Your task to perform on an android device: turn notification dots on Image 0: 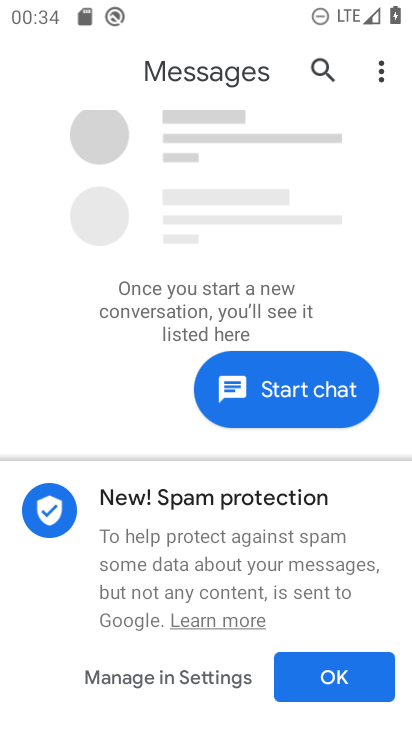
Step 0: press home button
Your task to perform on an android device: turn notification dots on Image 1: 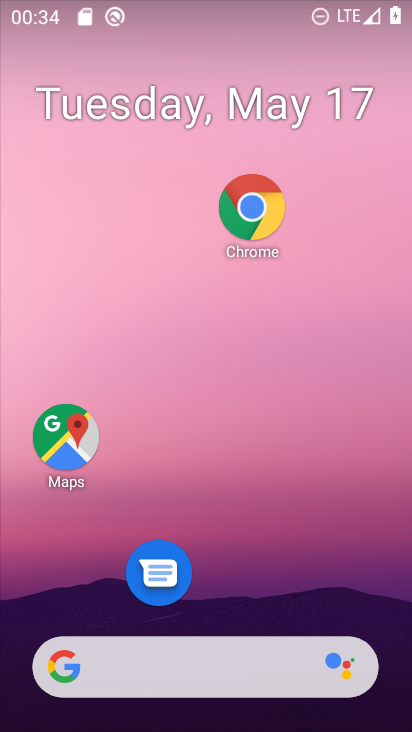
Step 1: drag from (164, 630) to (209, 125)
Your task to perform on an android device: turn notification dots on Image 2: 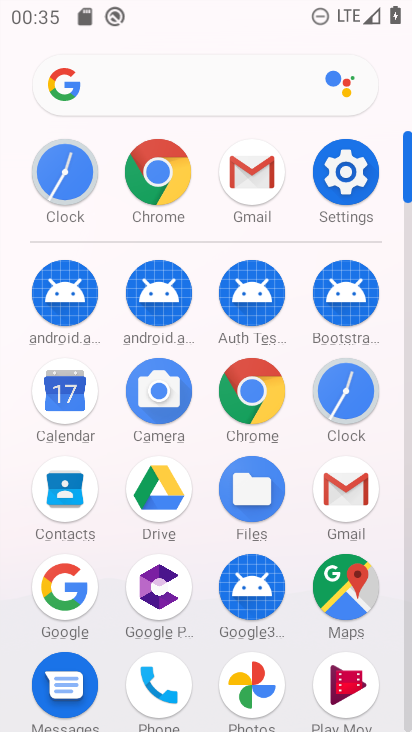
Step 2: click (329, 166)
Your task to perform on an android device: turn notification dots on Image 3: 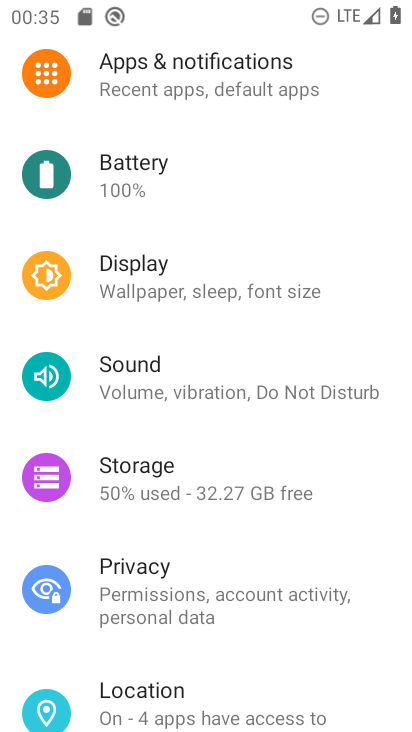
Step 3: drag from (246, 175) to (253, 607)
Your task to perform on an android device: turn notification dots on Image 4: 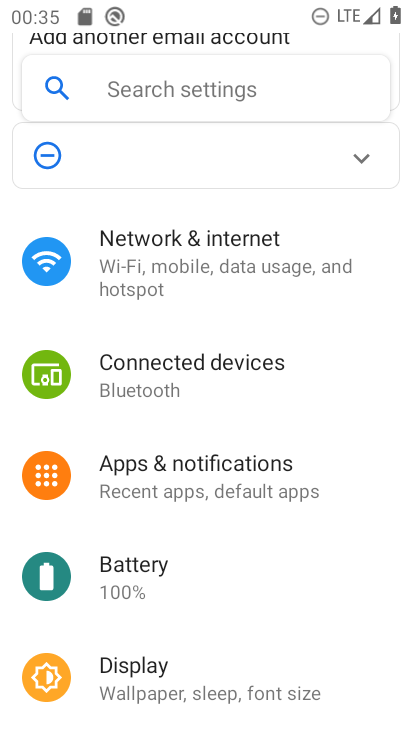
Step 4: click (258, 493)
Your task to perform on an android device: turn notification dots on Image 5: 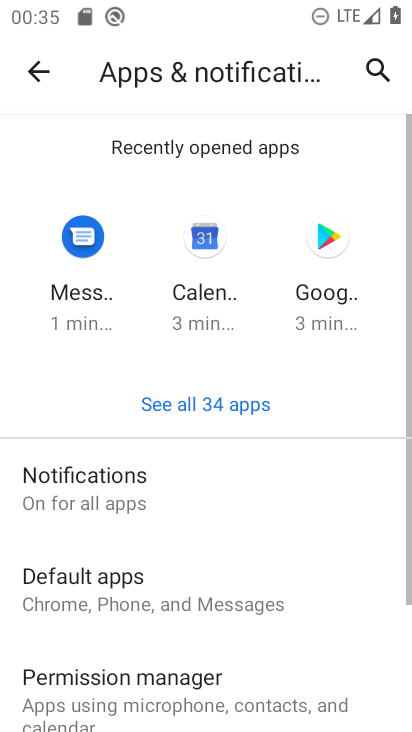
Step 5: drag from (255, 541) to (339, 101)
Your task to perform on an android device: turn notification dots on Image 6: 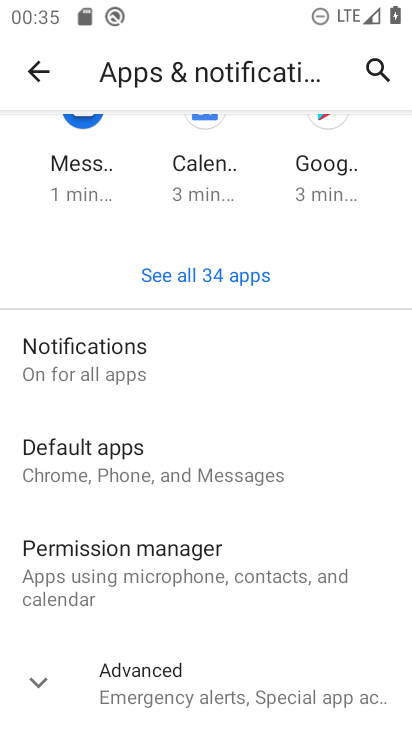
Step 6: click (176, 350)
Your task to perform on an android device: turn notification dots on Image 7: 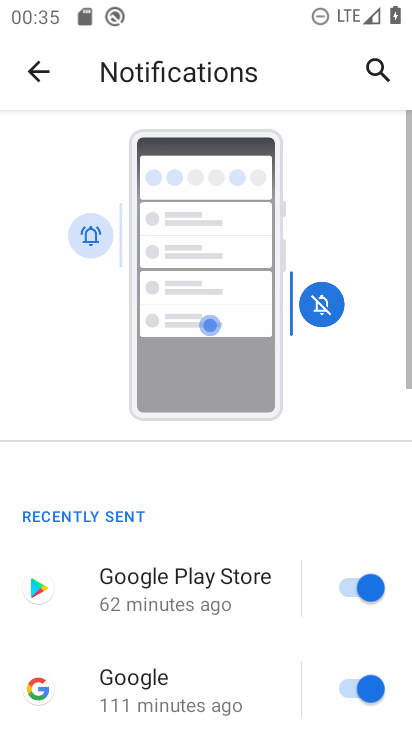
Step 7: drag from (210, 638) to (340, 72)
Your task to perform on an android device: turn notification dots on Image 8: 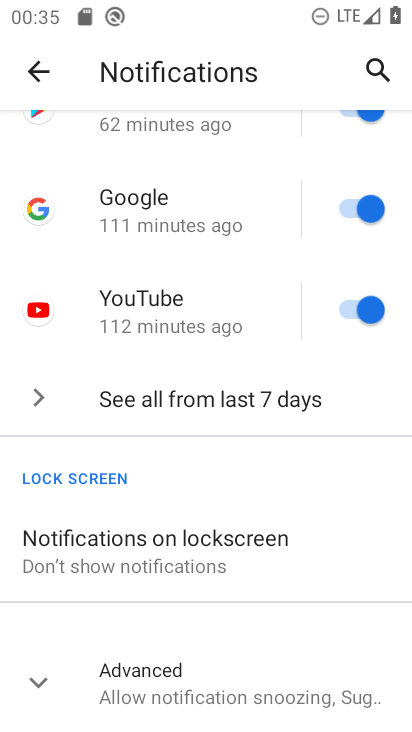
Step 8: drag from (257, 663) to (263, 405)
Your task to perform on an android device: turn notification dots on Image 9: 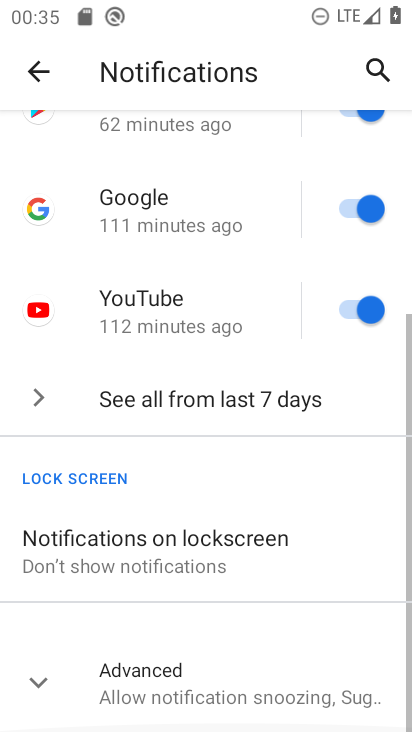
Step 9: click (205, 683)
Your task to perform on an android device: turn notification dots on Image 10: 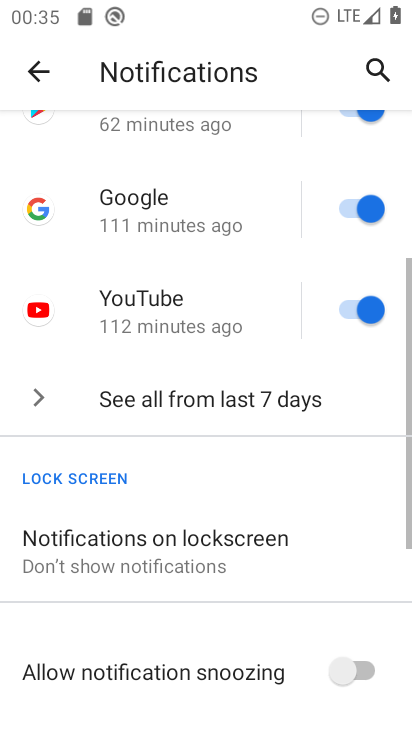
Step 10: task complete